Your task to perform on an android device: Check the weather Image 0: 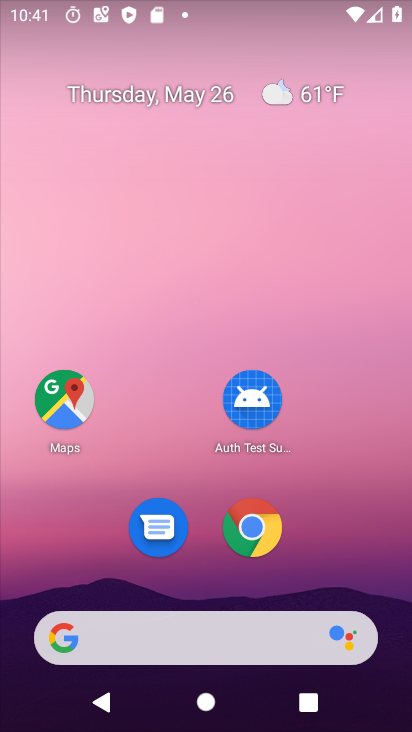
Step 0: drag from (352, 525) to (352, 24)
Your task to perform on an android device: Check the weather Image 1: 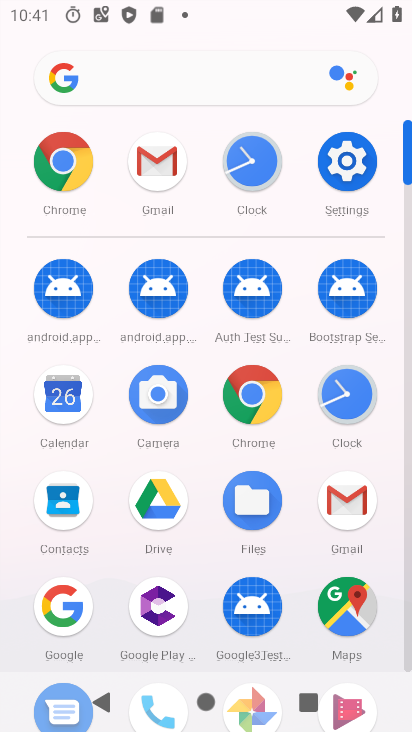
Step 1: press home button
Your task to perform on an android device: Check the weather Image 2: 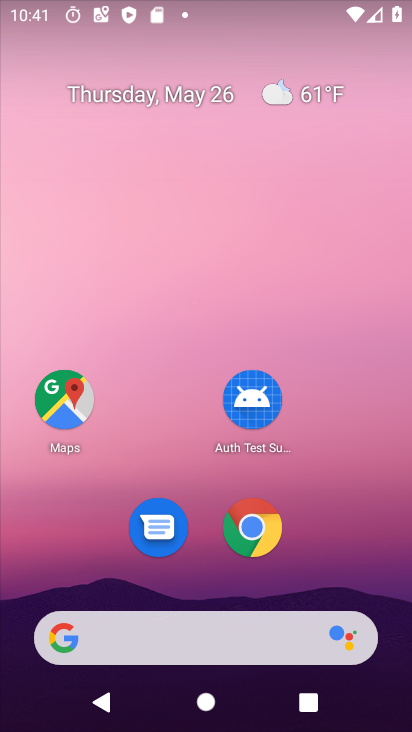
Step 2: click (322, 104)
Your task to perform on an android device: Check the weather Image 3: 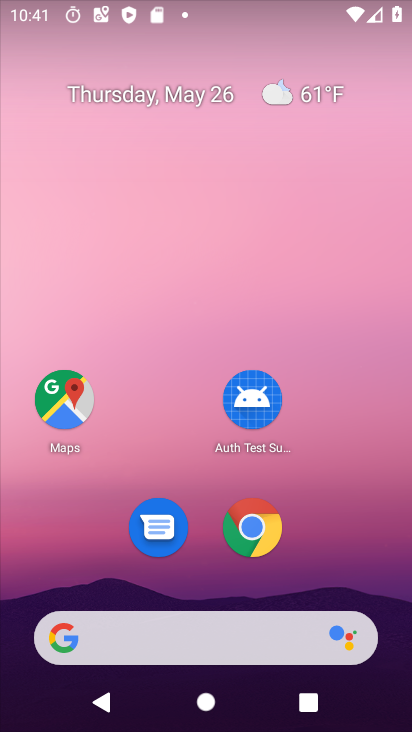
Step 3: click (322, 103)
Your task to perform on an android device: Check the weather Image 4: 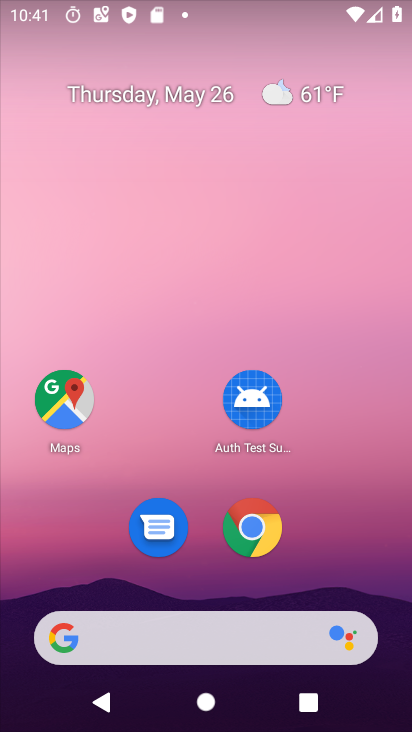
Step 4: click (305, 95)
Your task to perform on an android device: Check the weather Image 5: 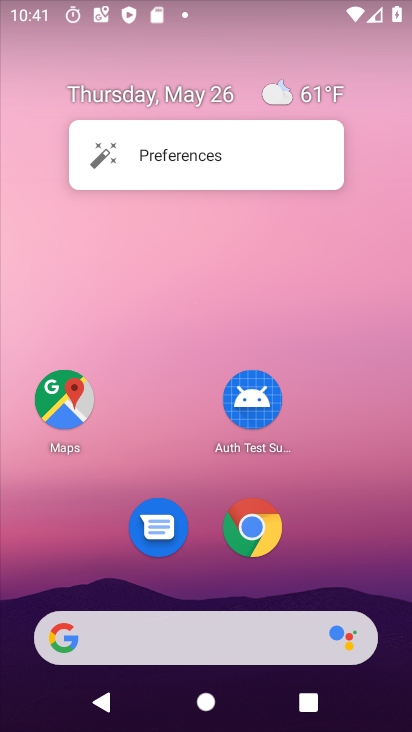
Step 5: click (314, 84)
Your task to perform on an android device: Check the weather Image 6: 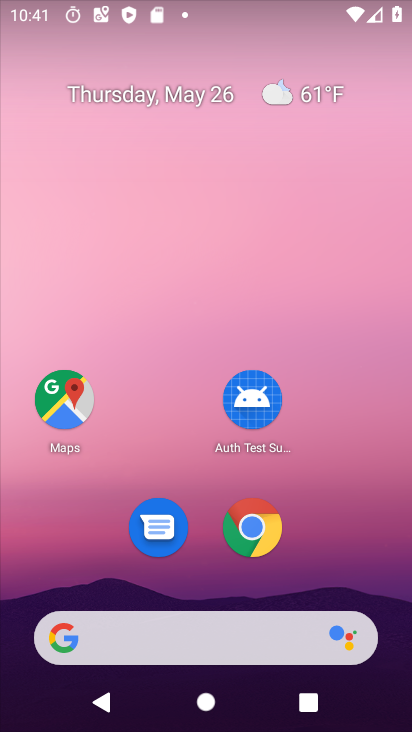
Step 6: click (313, 90)
Your task to perform on an android device: Check the weather Image 7: 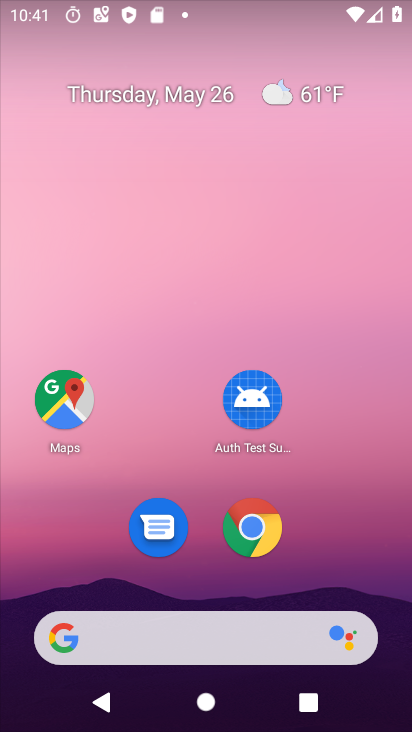
Step 7: click (316, 93)
Your task to perform on an android device: Check the weather Image 8: 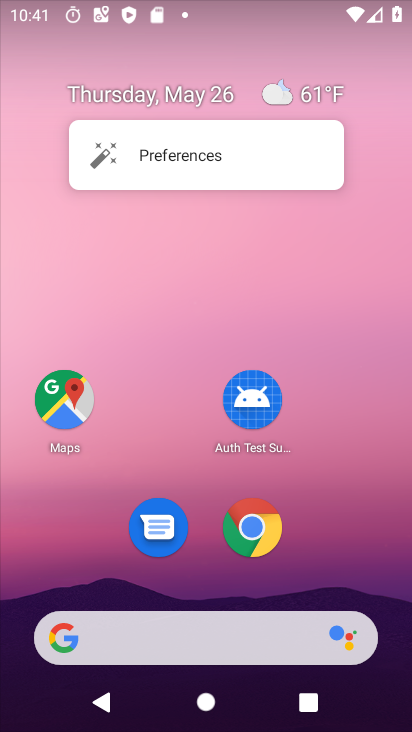
Step 8: click (57, 647)
Your task to perform on an android device: Check the weather Image 9: 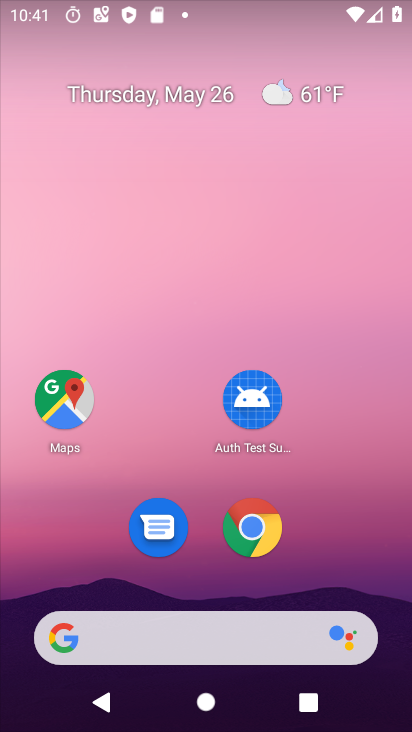
Step 9: click (57, 648)
Your task to perform on an android device: Check the weather Image 10: 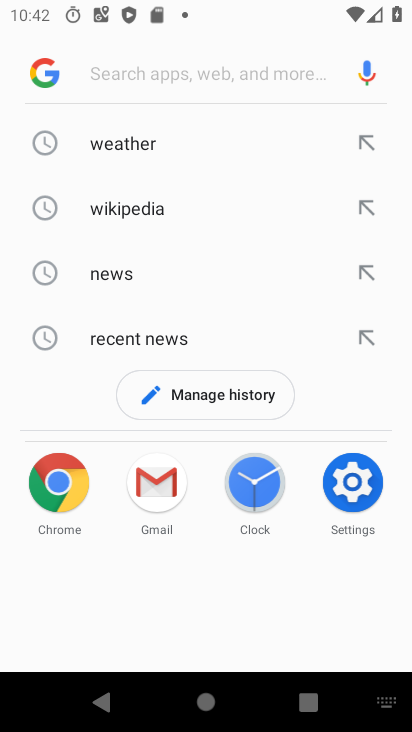
Step 10: click (48, 74)
Your task to perform on an android device: Check the weather Image 11: 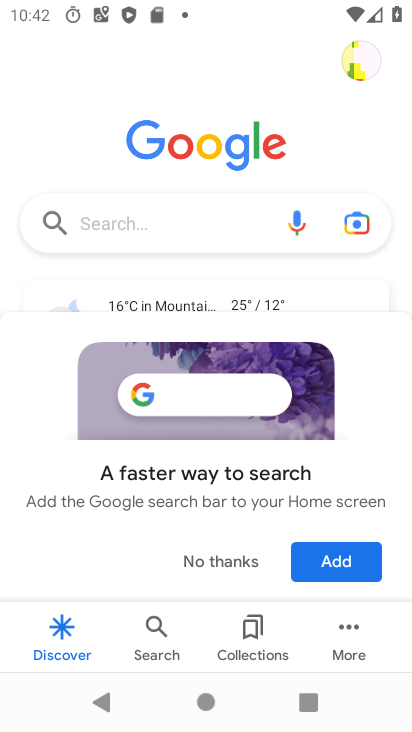
Step 11: click (169, 310)
Your task to perform on an android device: Check the weather Image 12: 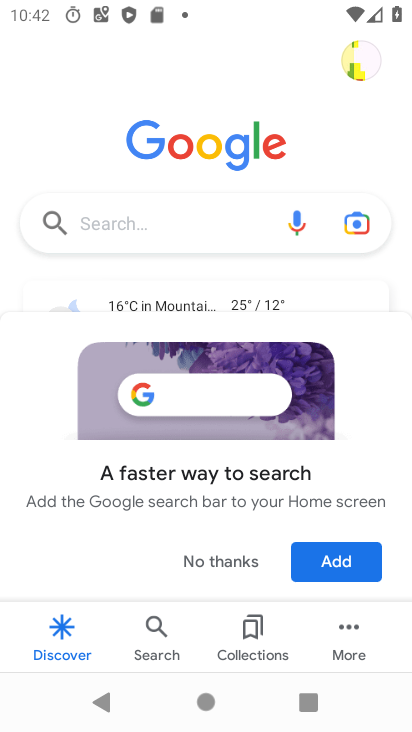
Step 12: click (181, 296)
Your task to perform on an android device: Check the weather Image 13: 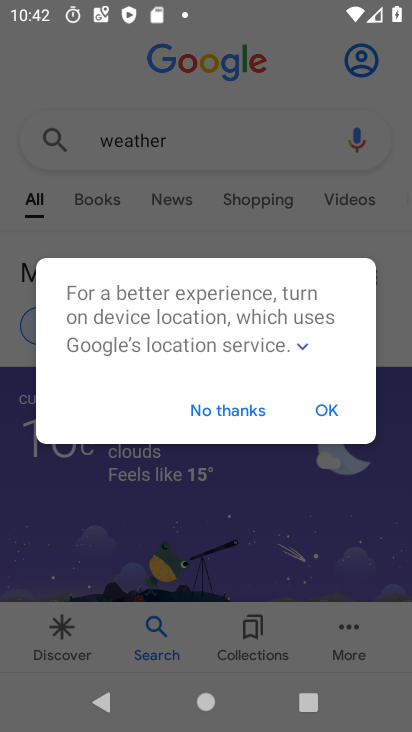
Step 13: click (258, 425)
Your task to perform on an android device: Check the weather Image 14: 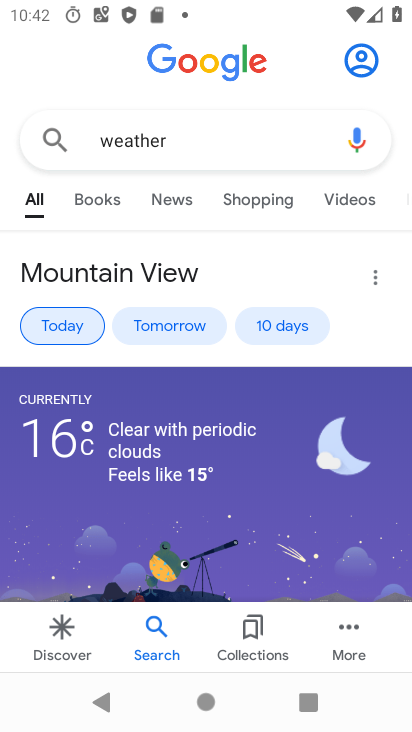
Step 14: task complete